Your task to perform on an android device: find which apps use the phone's location Image 0: 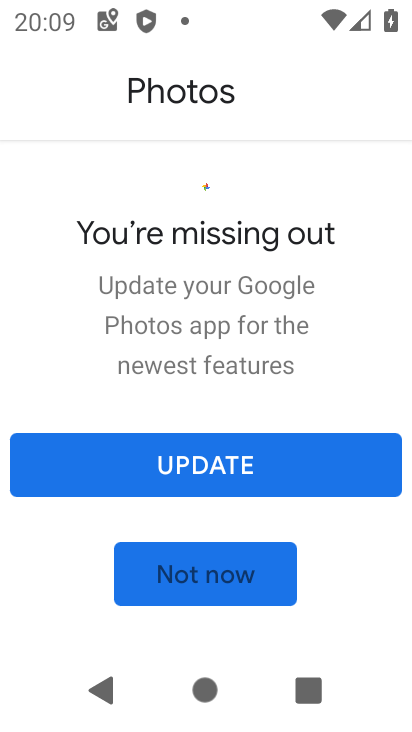
Step 0: press home button
Your task to perform on an android device: find which apps use the phone's location Image 1: 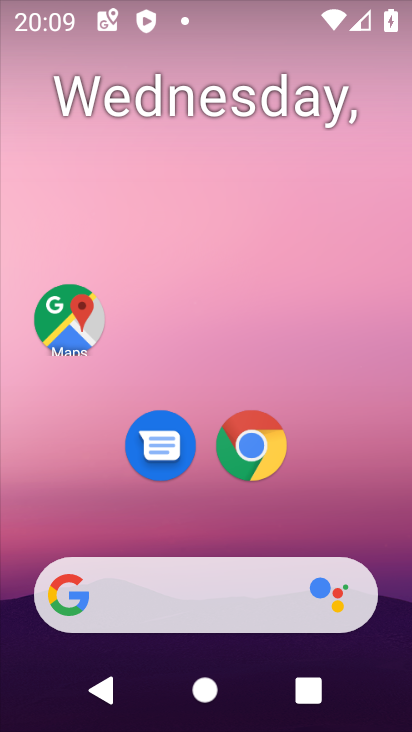
Step 1: drag from (333, 527) to (345, 250)
Your task to perform on an android device: find which apps use the phone's location Image 2: 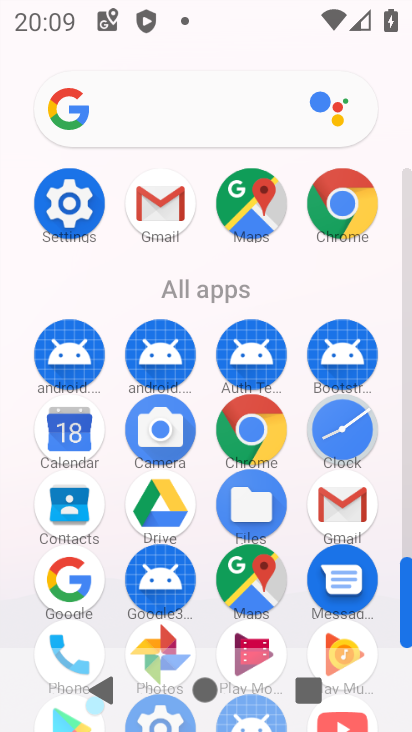
Step 2: click (80, 209)
Your task to perform on an android device: find which apps use the phone's location Image 3: 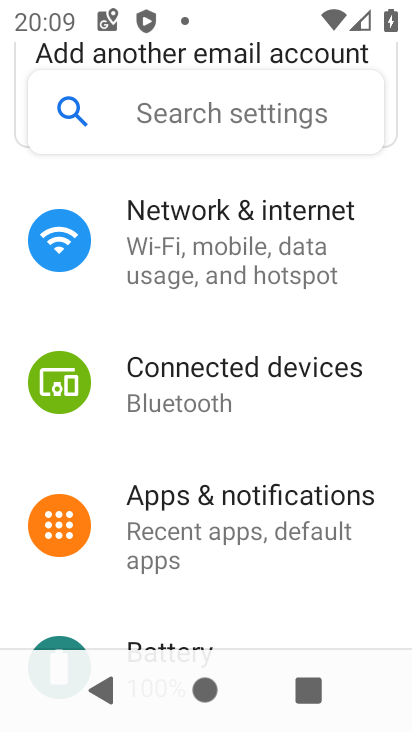
Step 3: drag from (223, 559) to (234, 184)
Your task to perform on an android device: find which apps use the phone's location Image 4: 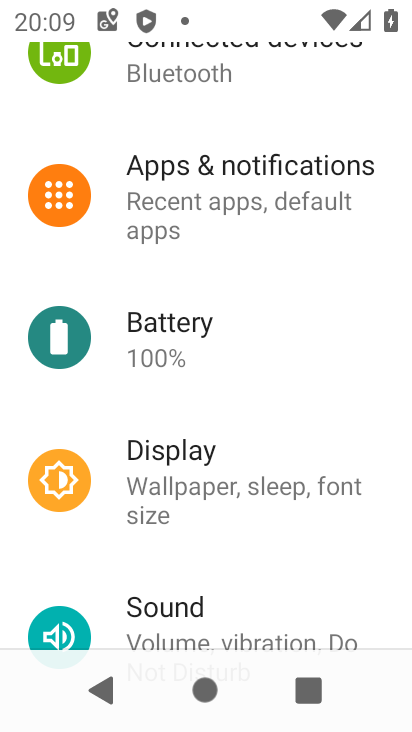
Step 4: drag from (181, 535) to (227, 232)
Your task to perform on an android device: find which apps use the phone's location Image 5: 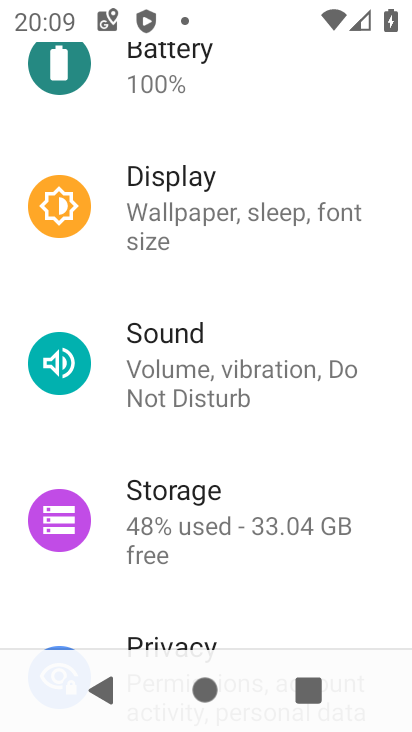
Step 5: drag from (215, 519) to (293, 184)
Your task to perform on an android device: find which apps use the phone's location Image 6: 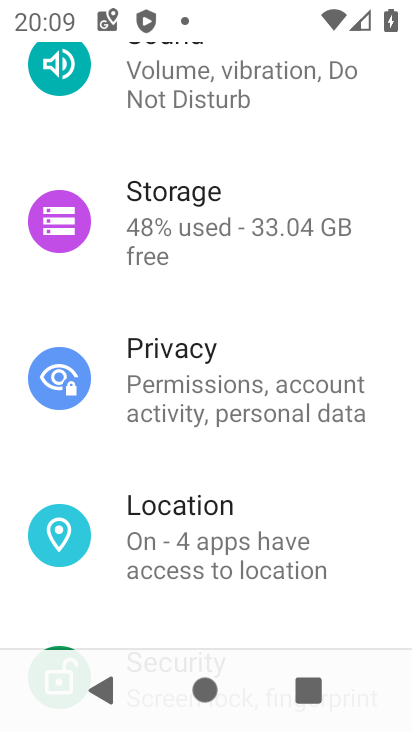
Step 6: click (200, 544)
Your task to perform on an android device: find which apps use the phone's location Image 7: 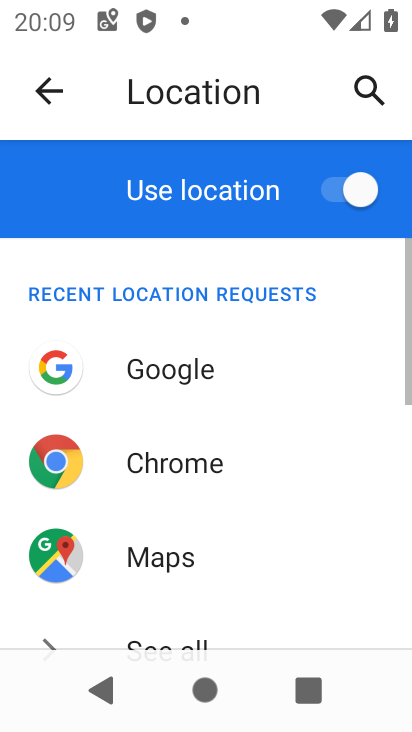
Step 7: drag from (193, 606) to (279, 205)
Your task to perform on an android device: find which apps use the phone's location Image 8: 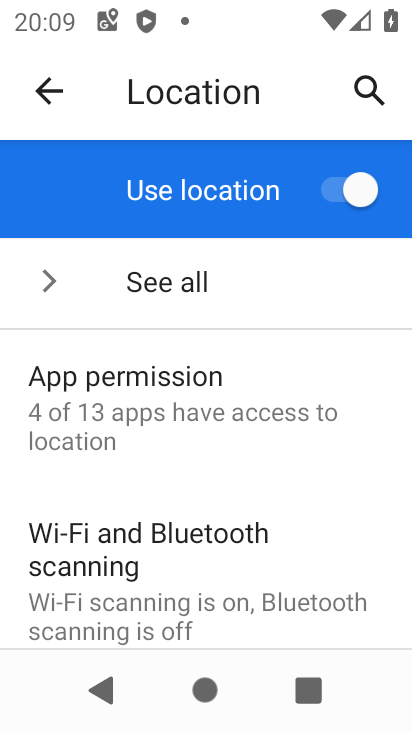
Step 8: drag from (190, 584) to (304, 279)
Your task to perform on an android device: find which apps use the phone's location Image 9: 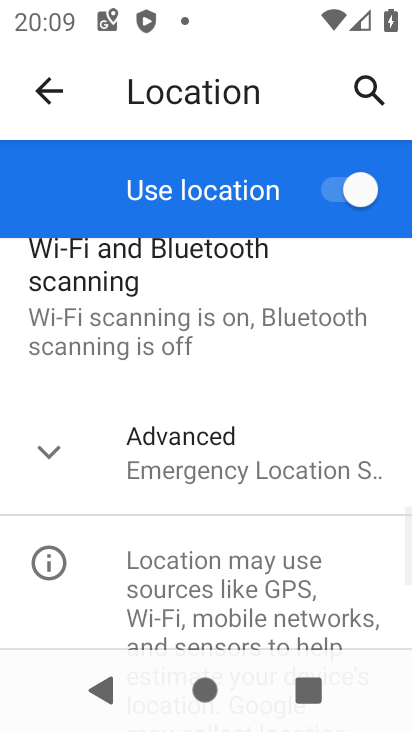
Step 9: click (268, 457)
Your task to perform on an android device: find which apps use the phone's location Image 10: 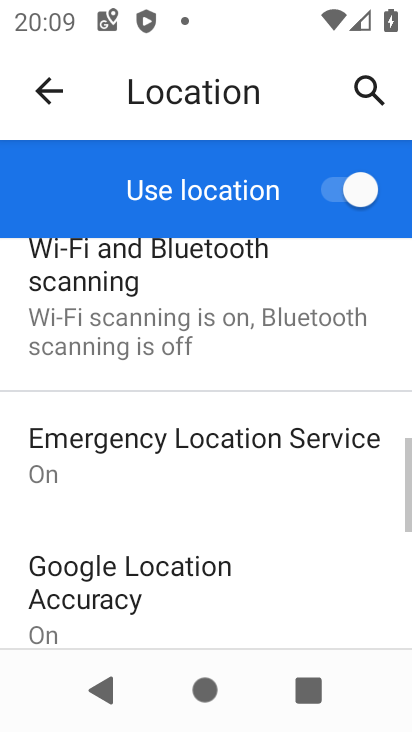
Step 10: task complete